Your task to perform on an android device: change timer sound Image 0: 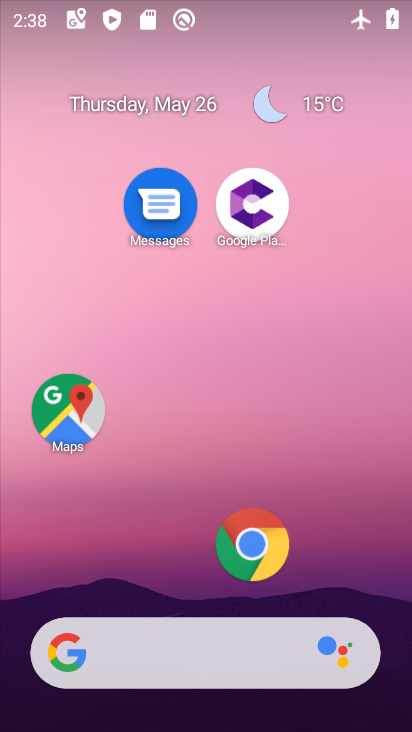
Step 0: drag from (166, 578) to (186, 30)
Your task to perform on an android device: change timer sound Image 1: 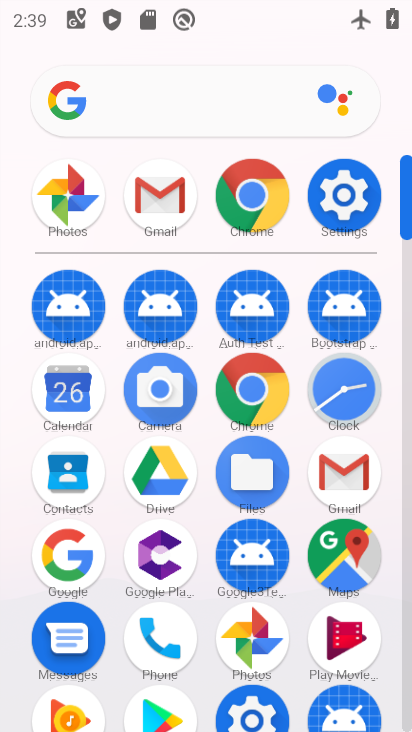
Step 1: click (349, 187)
Your task to perform on an android device: change timer sound Image 2: 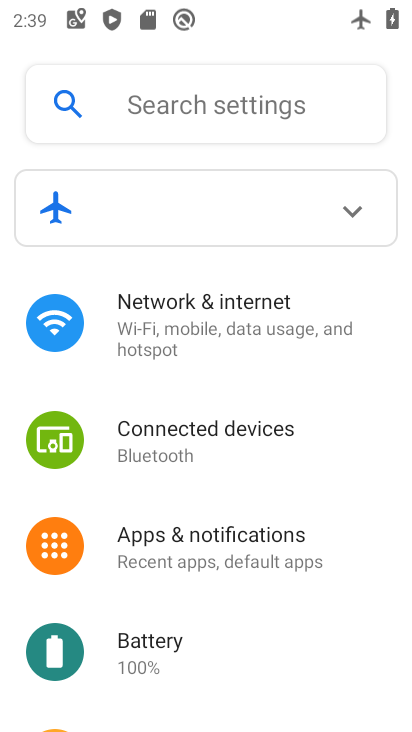
Step 2: drag from (130, 599) to (228, 234)
Your task to perform on an android device: change timer sound Image 3: 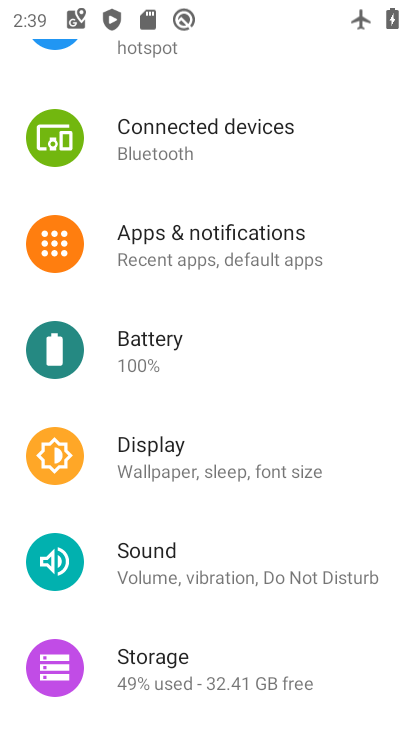
Step 3: click (125, 557)
Your task to perform on an android device: change timer sound Image 4: 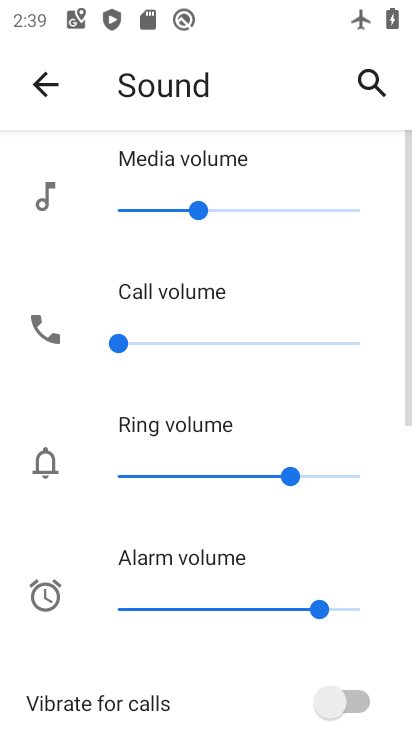
Step 4: task complete